Your task to perform on an android device: Open the map Image 0: 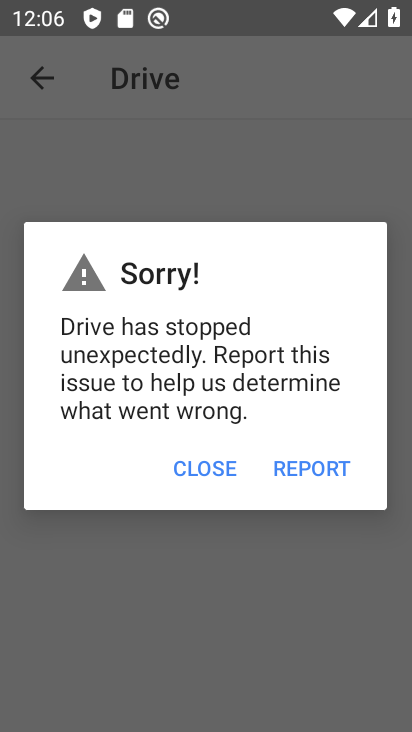
Step 0: press home button
Your task to perform on an android device: Open the map Image 1: 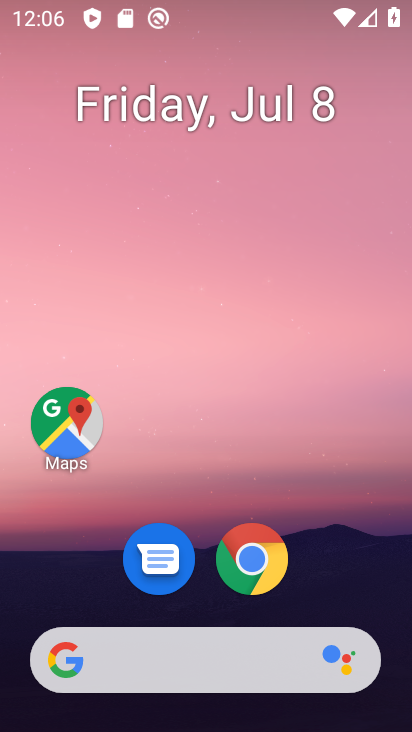
Step 1: drag from (205, 627) to (165, 27)
Your task to perform on an android device: Open the map Image 2: 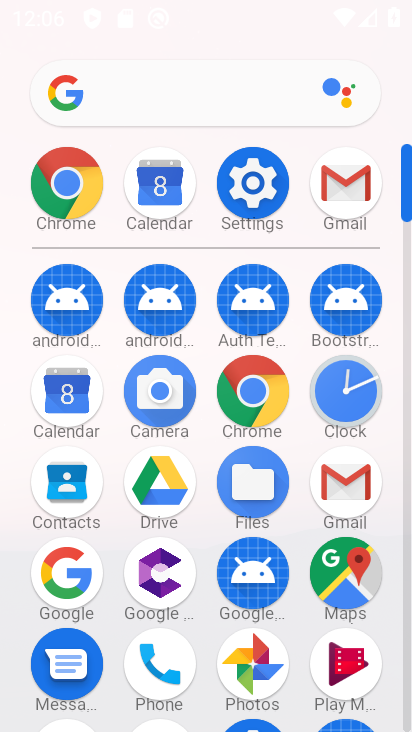
Step 2: click (331, 557)
Your task to perform on an android device: Open the map Image 3: 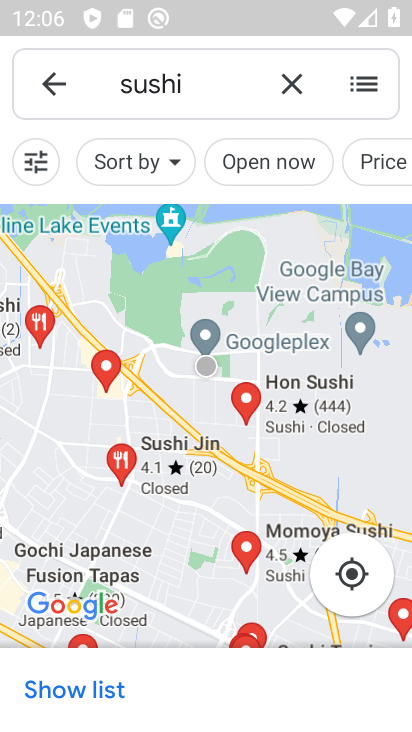
Step 3: drag from (153, 169) to (183, 405)
Your task to perform on an android device: Open the map Image 4: 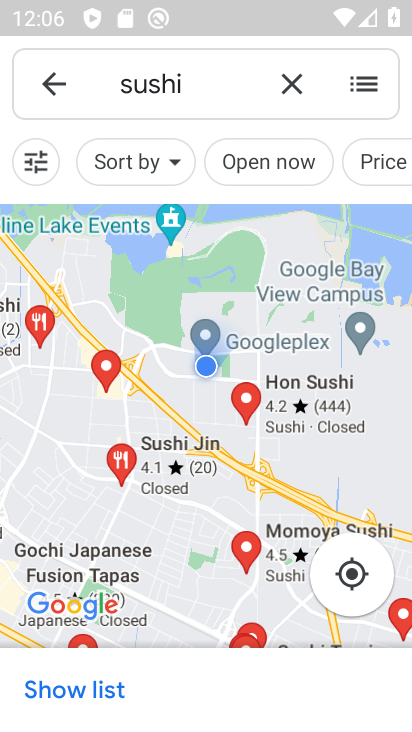
Step 4: click (54, 67)
Your task to perform on an android device: Open the map Image 5: 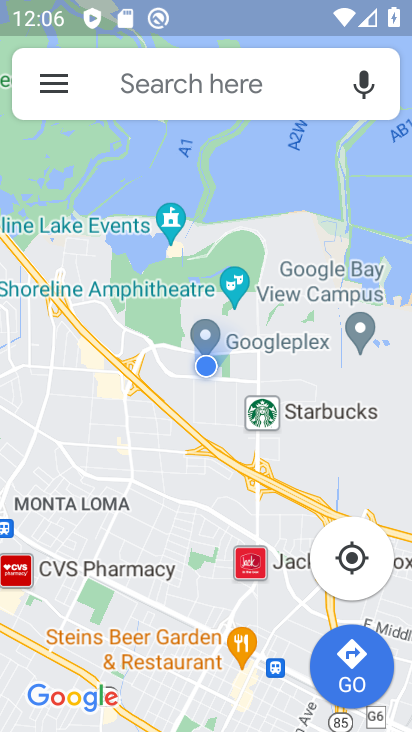
Step 5: task complete